Your task to perform on an android device: find which apps use the phone's location Image 0: 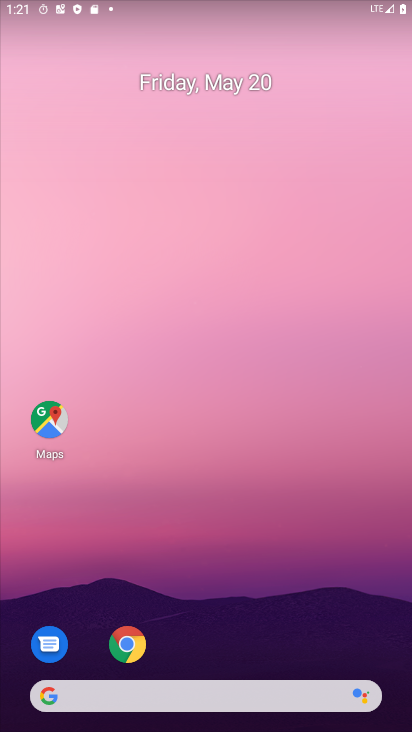
Step 0: drag from (397, 529) to (357, 19)
Your task to perform on an android device: find which apps use the phone's location Image 1: 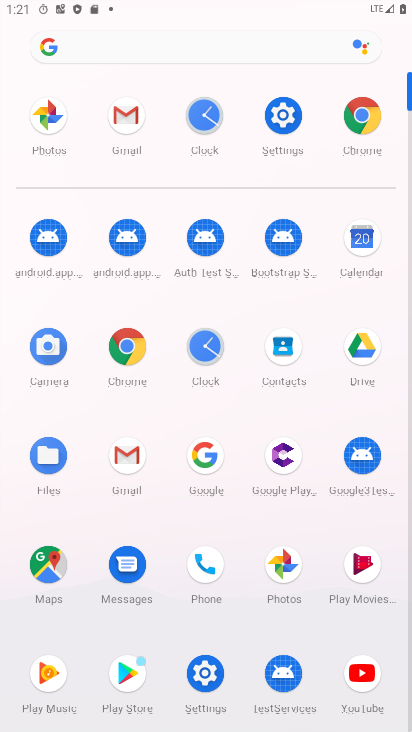
Step 1: click (263, 122)
Your task to perform on an android device: find which apps use the phone's location Image 2: 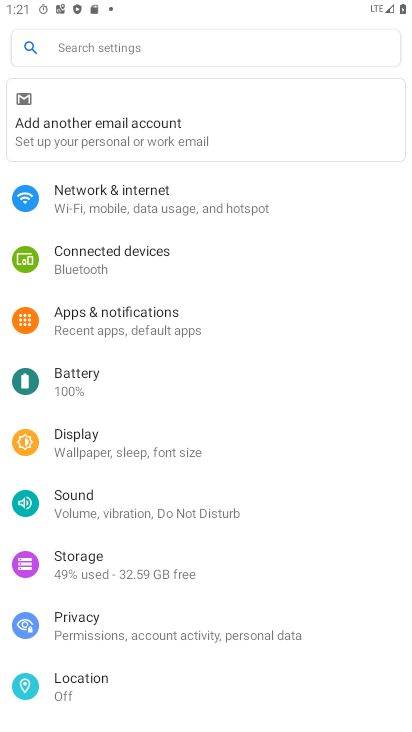
Step 2: drag from (178, 591) to (213, 134)
Your task to perform on an android device: find which apps use the phone's location Image 3: 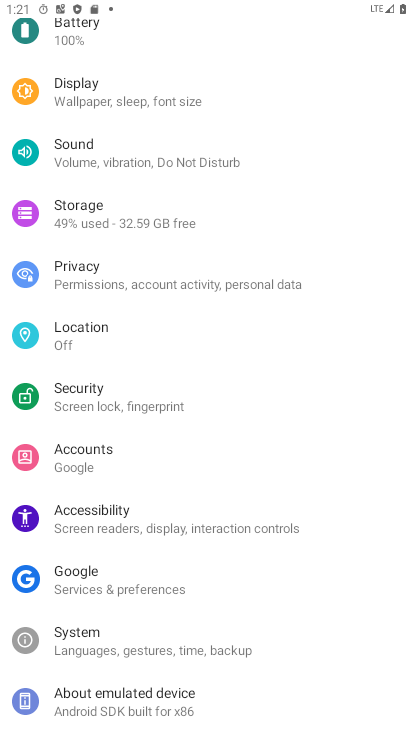
Step 3: click (81, 330)
Your task to perform on an android device: find which apps use the phone's location Image 4: 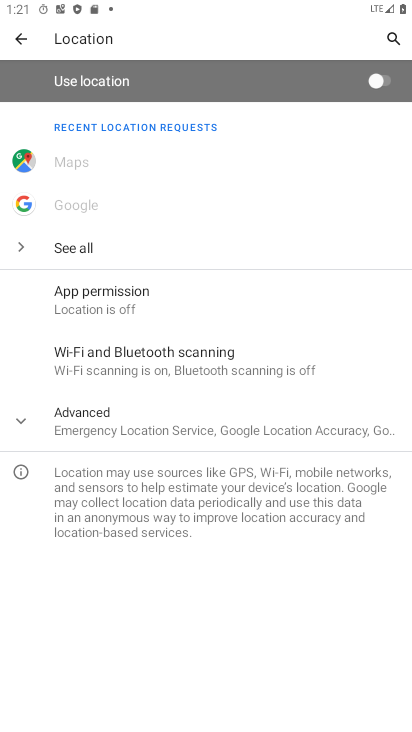
Step 4: click (110, 315)
Your task to perform on an android device: find which apps use the phone's location Image 5: 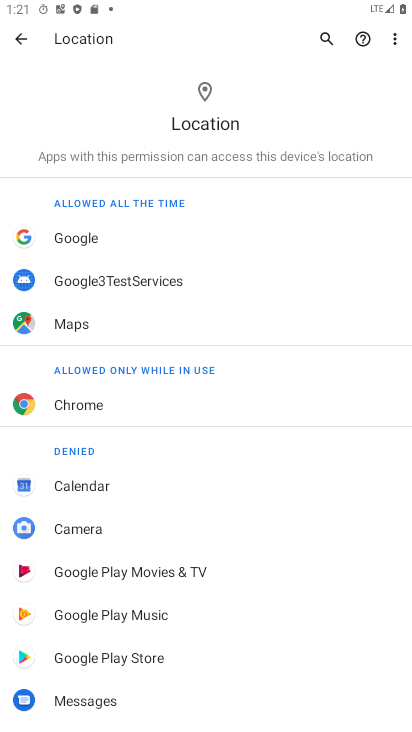
Step 5: task complete